Your task to perform on an android device: turn on airplane mode Image 0: 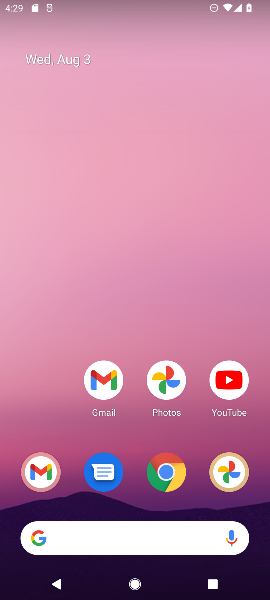
Step 0: drag from (201, 504) to (50, 98)
Your task to perform on an android device: turn on airplane mode Image 1: 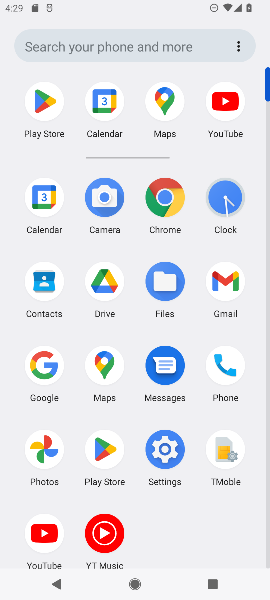
Step 1: drag from (133, 5) to (194, 476)
Your task to perform on an android device: turn on airplane mode Image 2: 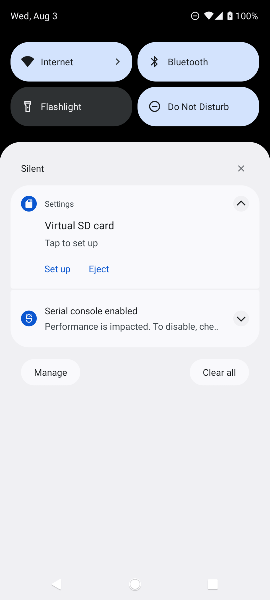
Step 2: drag from (144, 139) to (152, 499)
Your task to perform on an android device: turn on airplane mode Image 3: 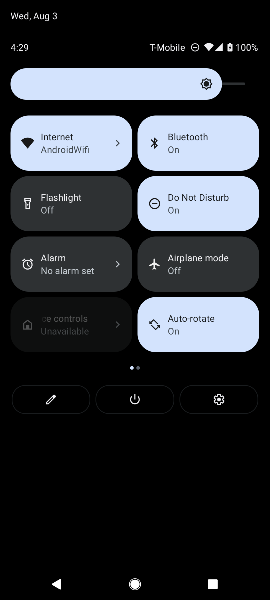
Step 3: click (212, 270)
Your task to perform on an android device: turn on airplane mode Image 4: 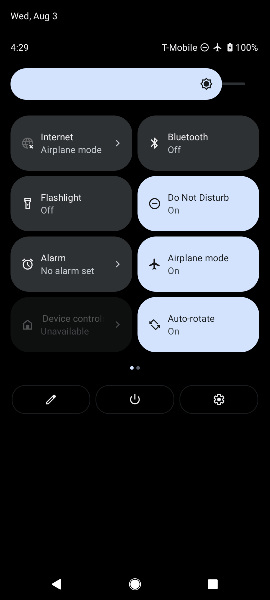
Step 4: task complete